Your task to perform on an android device: set default search engine in the chrome app Image 0: 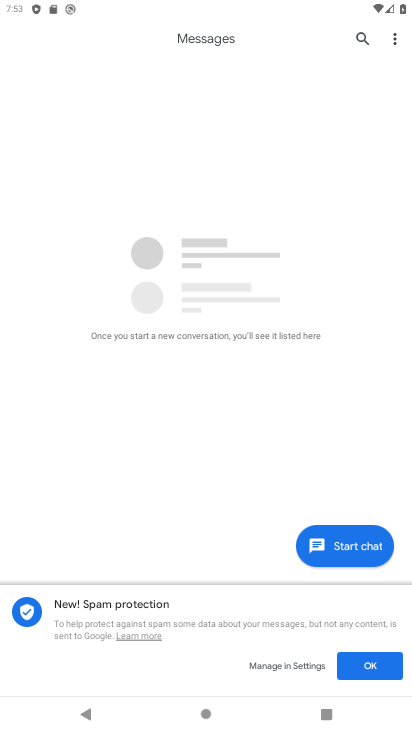
Step 0: press home button
Your task to perform on an android device: set default search engine in the chrome app Image 1: 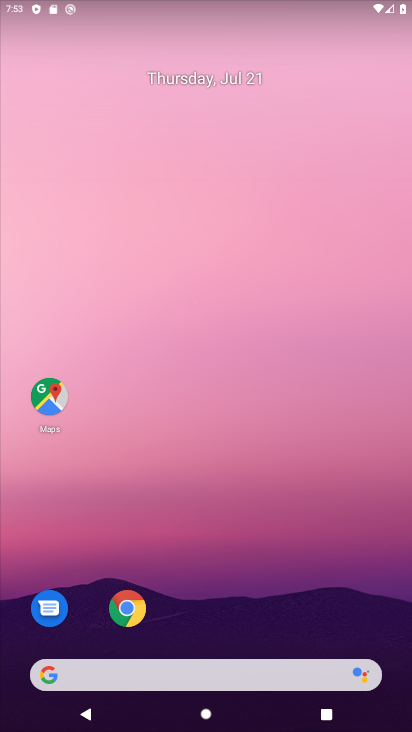
Step 1: click (147, 612)
Your task to perform on an android device: set default search engine in the chrome app Image 2: 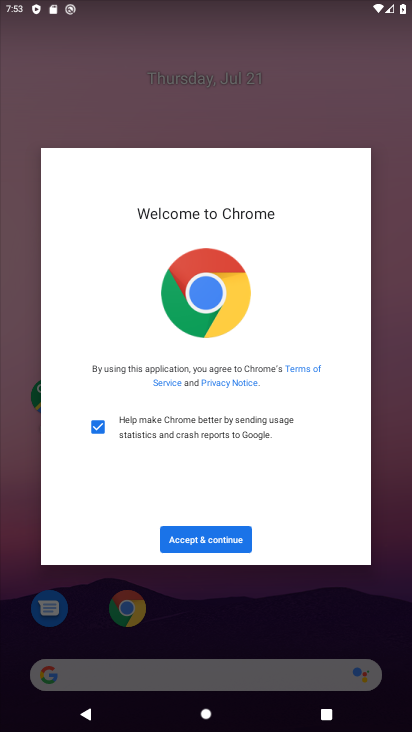
Step 2: click (229, 541)
Your task to perform on an android device: set default search engine in the chrome app Image 3: 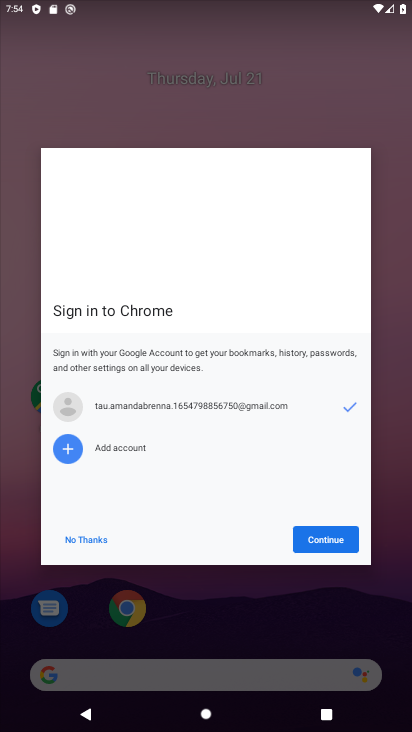
Step 3: click (306, 541)
Your task to perform on an android device: set default search engine in the chrome app Image 4: 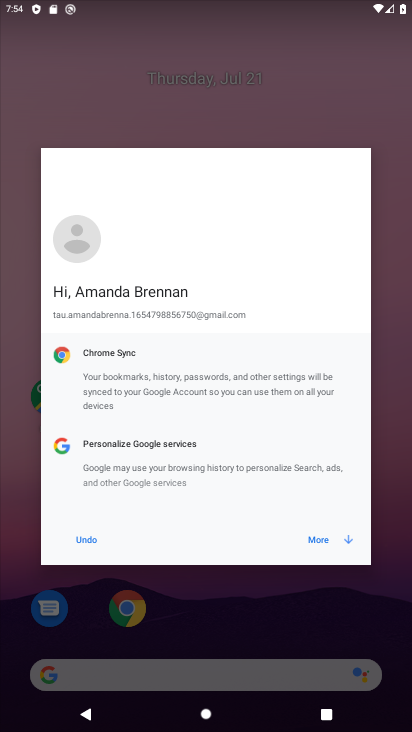
Step 4: click (326, 540)
Your task to perform on an android device: set default search engine in the chrome app Image 5: 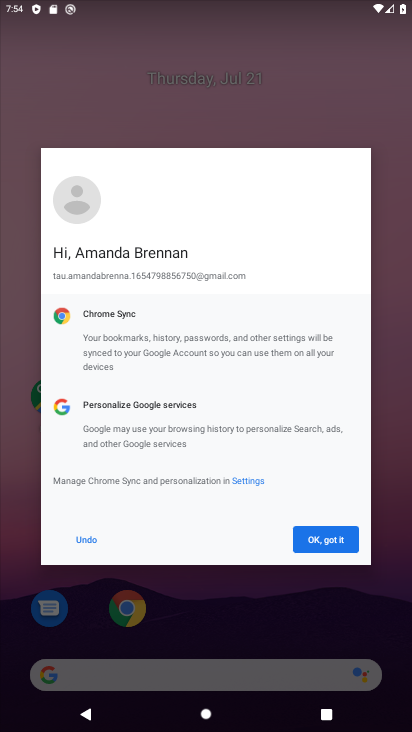
Step 5: click (325, 539)
Your task to perform on an android device: set default search engine in the chrome app Image 6: 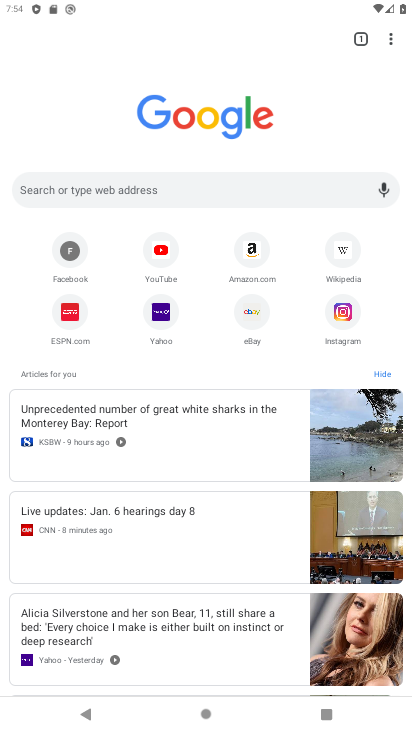
Step 6: click (394, 40)
Your task to perform on an android device: set default search engine in the chrome app Image 7: 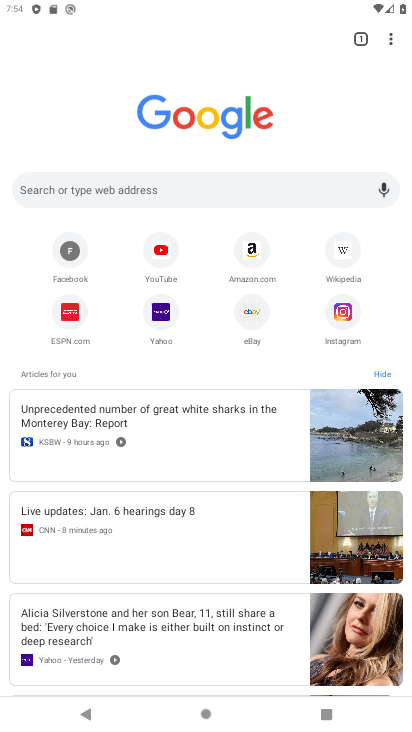
Step 7: click (394, 40)
Your task to perform on an android device: set default search engine in the chrome app Image 8: 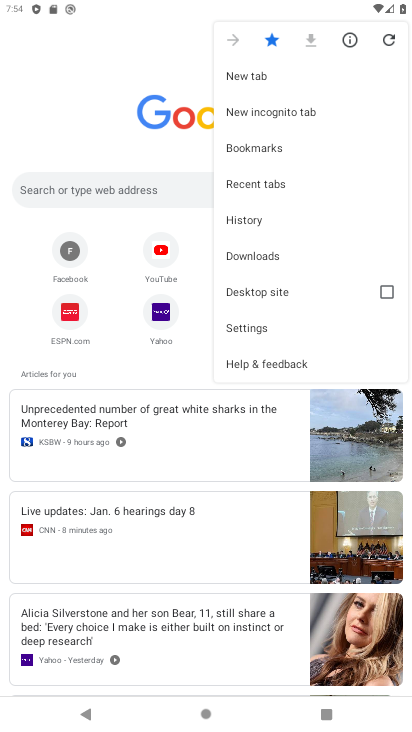
Step 8: click (239, 326)
Your task to perform on an android device: set default search engine in the chrome app Image 9: 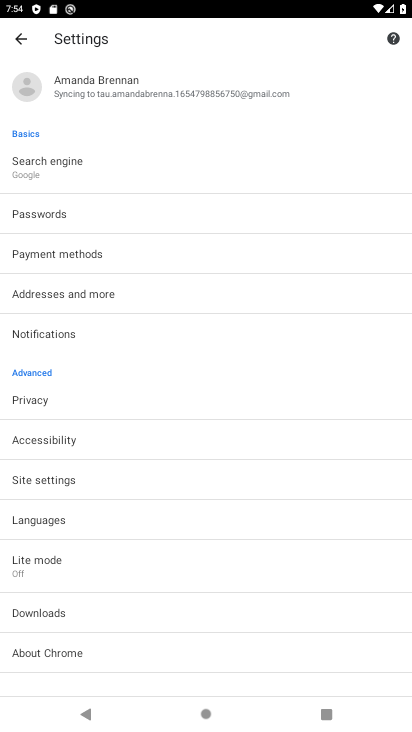
Step 9: task complete